Your task to perform on an android device: Show me recent news Image 0: 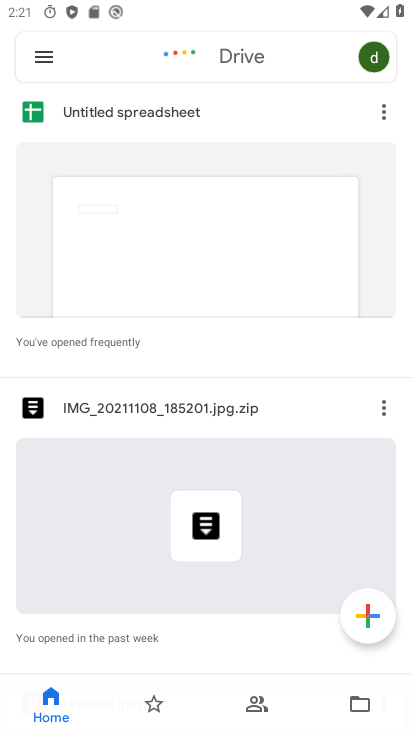
Step 0: press home button
Your task to perform on an android device: Show me recent news Image 1: 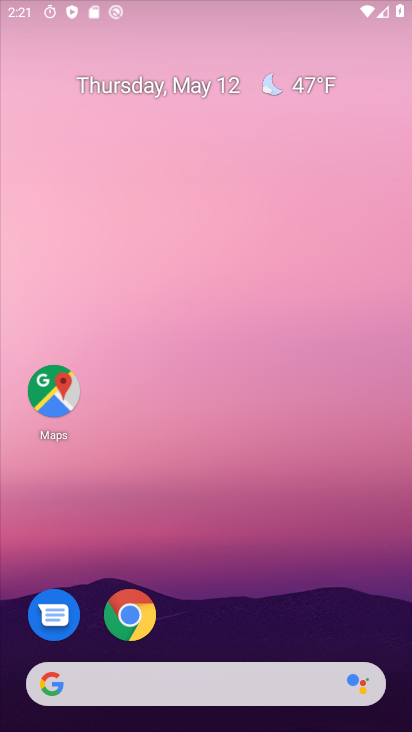
Step 1: drag from (216, 609) to (260, 129)
Your task to perform on an android device: Show me recent news Image 2: 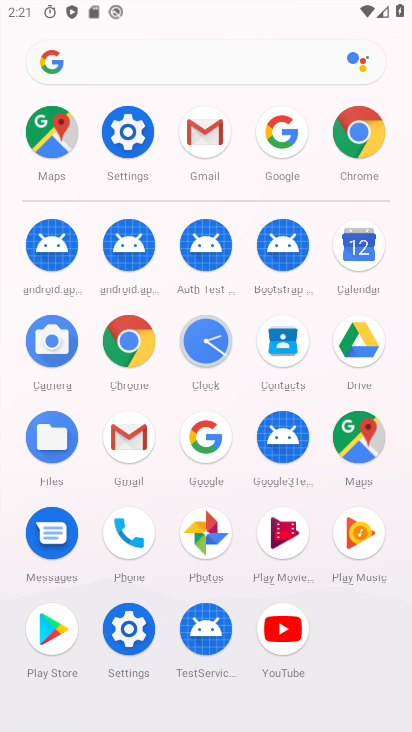
Step 2: click (203, 446)
Your task to perform on an android device: Show me recent news Image 3: 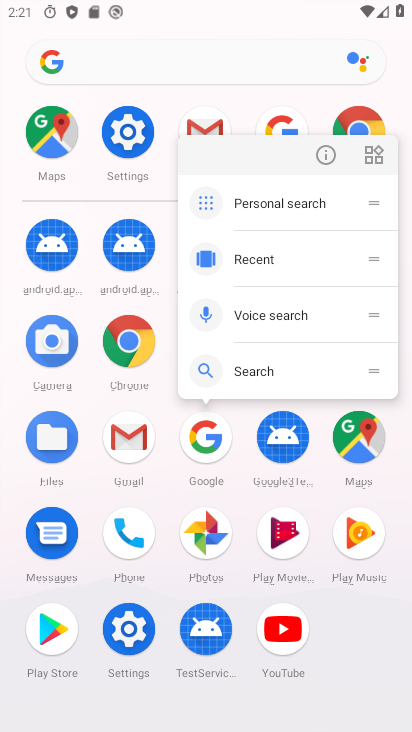
Step 3: click (211, 423)
Your task to perform on an android device: Show me recent news Image 4: 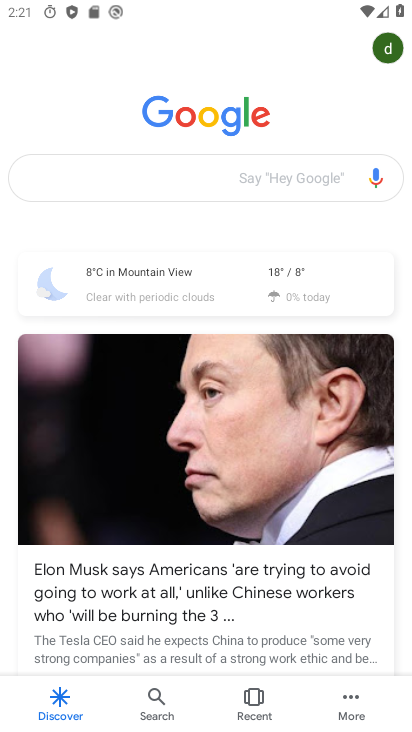
Step 4: click (221, 177)
Your task to perform on an android device: Show me recent news Image 5: 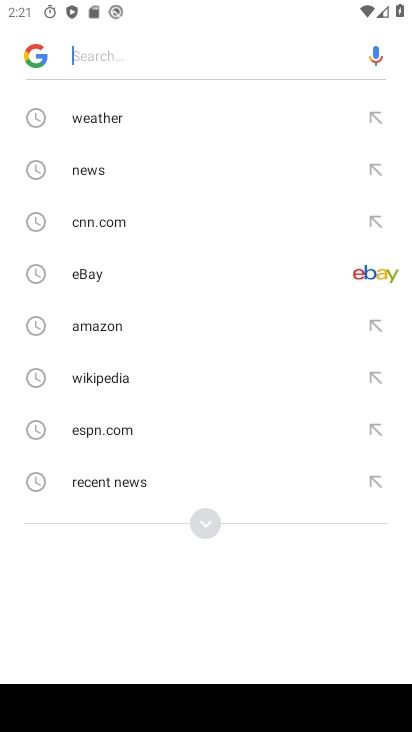
Step 5: click (129, 175)
Your task to perform on an android device: Show me recent news Image 6: 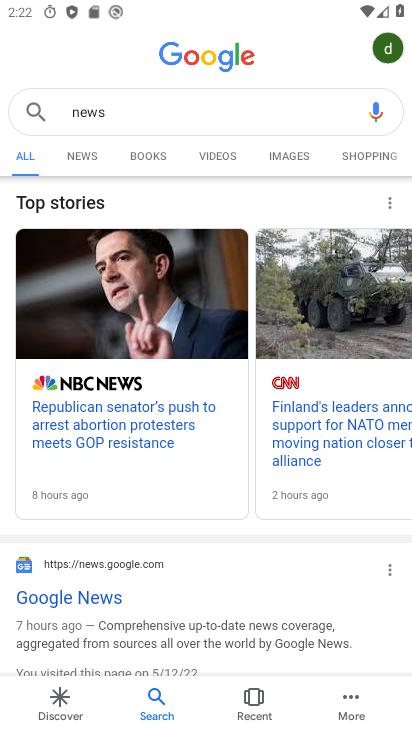
Step 6: task complete